Your task to perform on an android device: Go to accessibility settings Image 0: 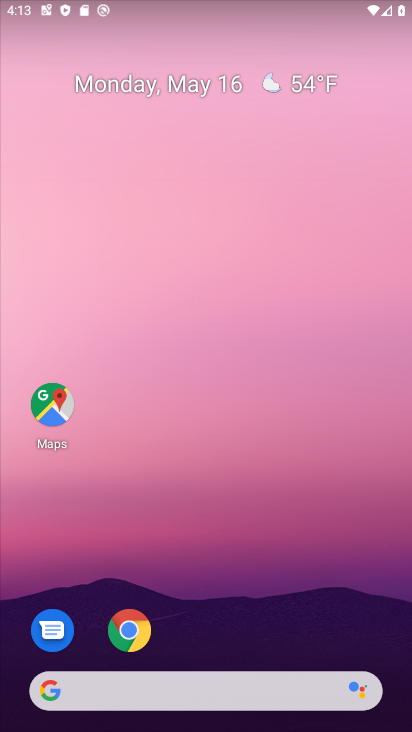
Step 0: drag from (251, 619) to (183, 130)
Your task to perform on an android device: Go to accessibility settings Image 1: 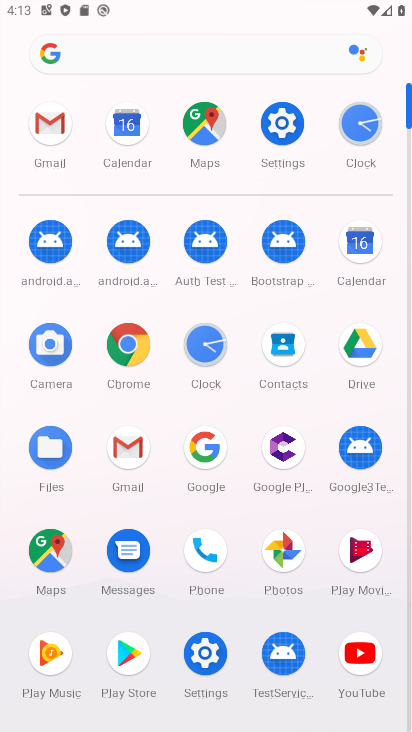
Step 1: click (211, 672)
Your task to perform on an android device: Go to accessibility settings Image 2: 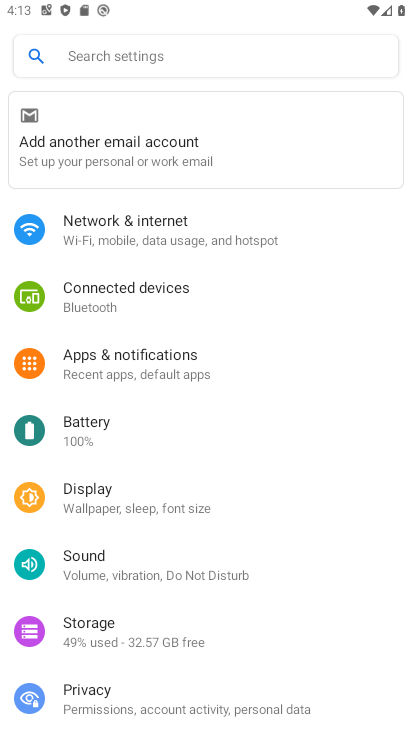
Step 2: drag from (208, 690) to (251, 150)
Your task to perform on an android device: Go to accessibility settings Image 3: 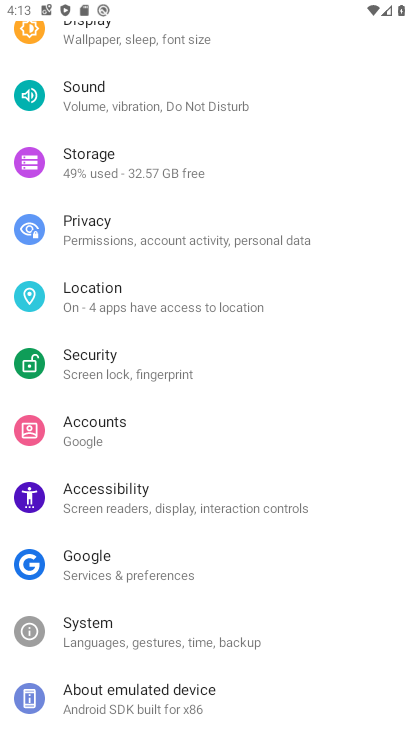
Step 3: click (73, 487)
Your task to perform on an android device: Go to accessibility settings Image 4: 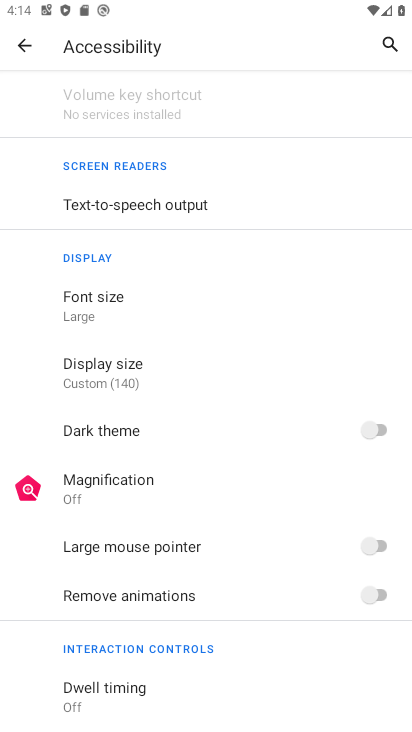
Step 4: task complete